Your task to perform on an android device: toggle notification dots Image 0: 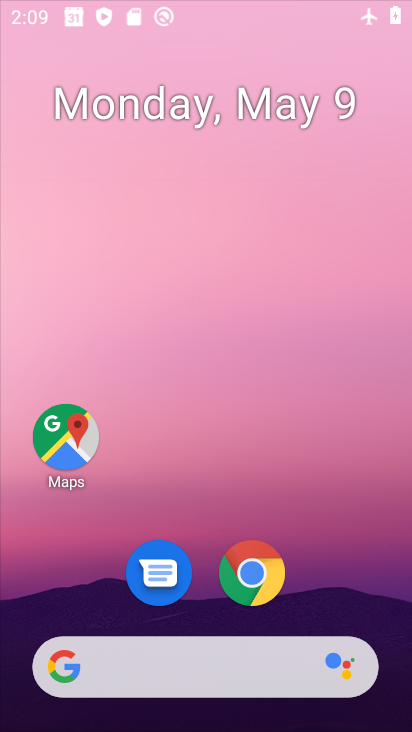
Step 0: drag from (266, 585) to (192, 120)
Your task to perform on an android device: toggle notification dots Image 1: 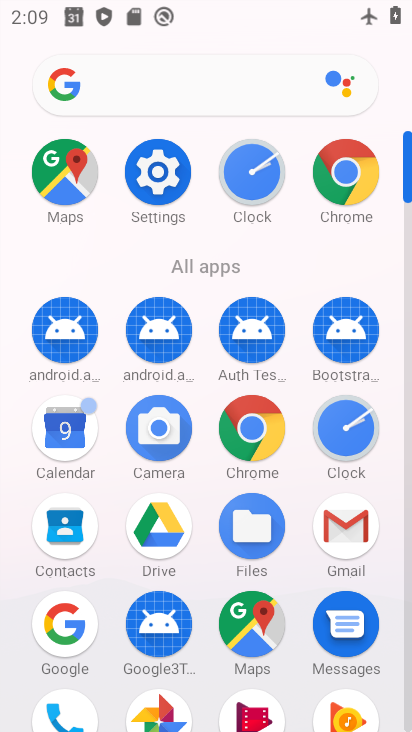
Step 1: click (149, 181)
Your task to perform on an android device: toggle notification dots Image 2: 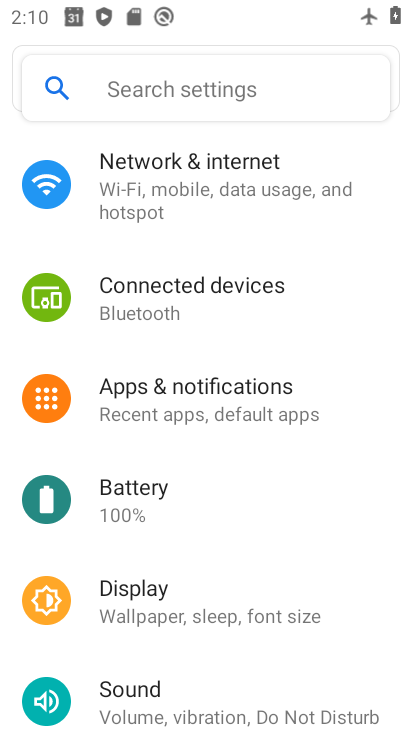
Step 2: click (154, 391)
Your task to perform on an android device: toggle notification dots Image 3: 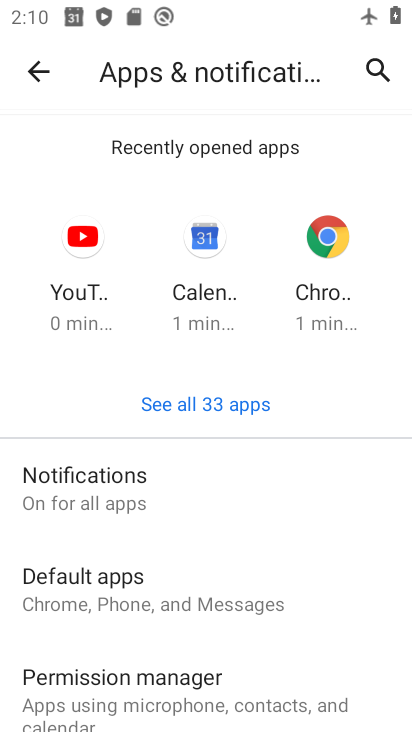
Step 3: drag from (201, 504) to (135, 149)
Your task to perform on an android device: toggle notification dots Image 4: 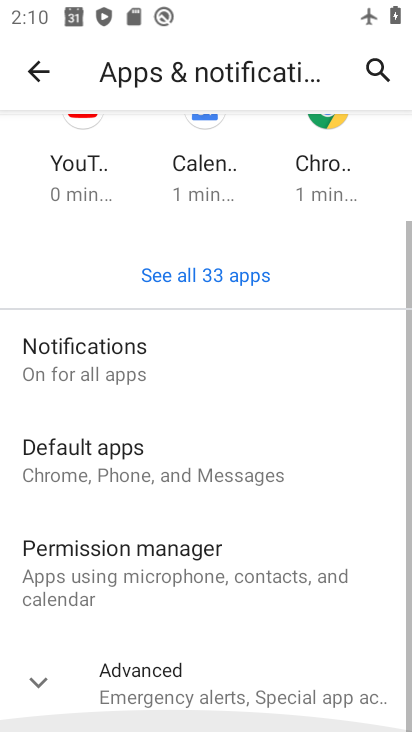
Step 4: drag from (141, 499) to (128, 307)
Your task to perform on an android device: toggle notification dots Image 5: 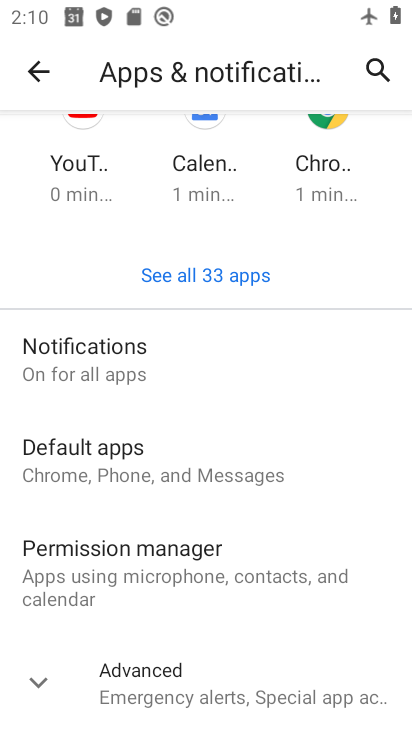
Step 5: drag from (152, 601) to (155, 242)
Your task to perform on an android device: toggle notification dots Image 6: 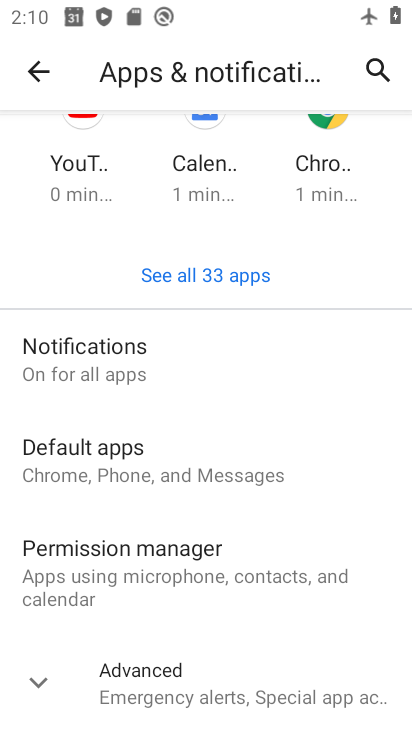
Step 6: click (84, 365)
Your task to perform on an android device: toggle notification dots Image 7: 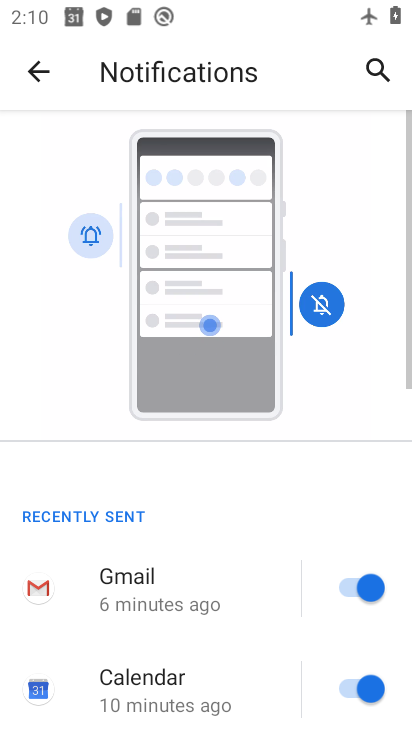
Step 7: drag from (176, 686) to (165, 241)
Your task to perform on an android device: toggle notification dots Image 8: 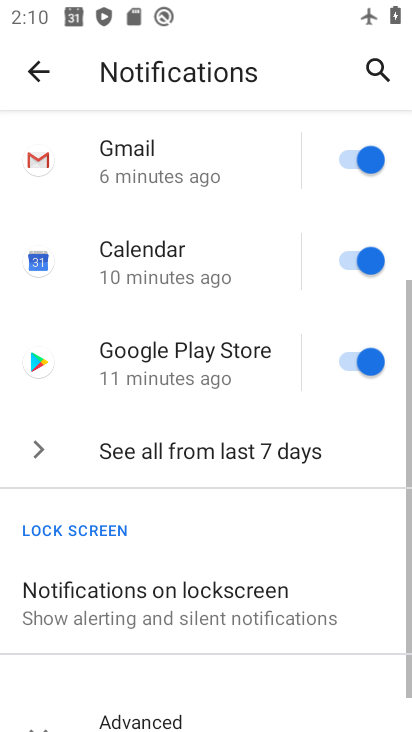
Step 8: drag from (249, 593) to (257, 229)
Your task to perform on an android device: toggle notification dots Image 9: 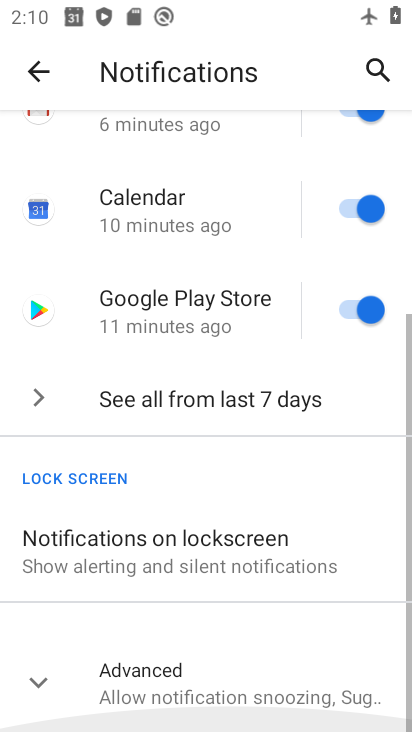
Step 9: drag from (281, 527) to (250, 145)
Your task to perform on an android device: toggle notification dots Image 10: 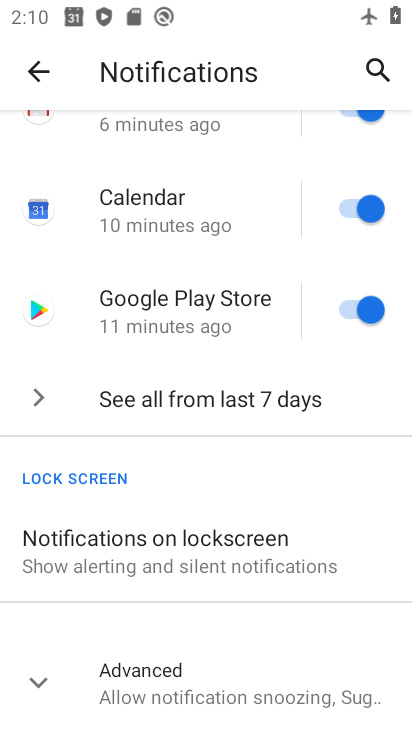
Step 10: click (183, 682)
Your task to perform on an android device: toggle notification dots Image 11: 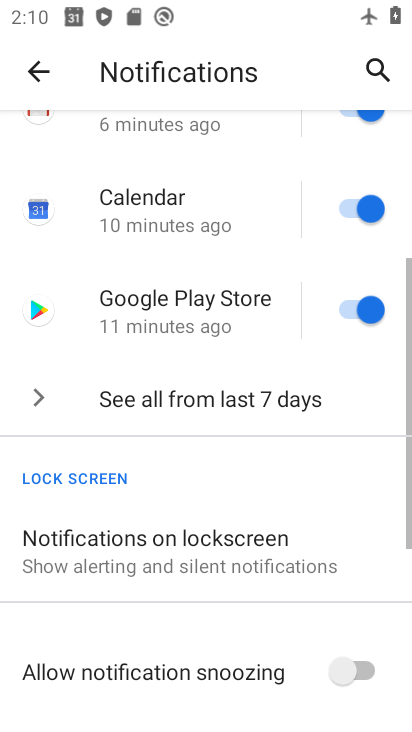
Step 11: drag from (178, 673) to (148, 272)
Your task to perform on an android device: toggle notification dots Image 12: 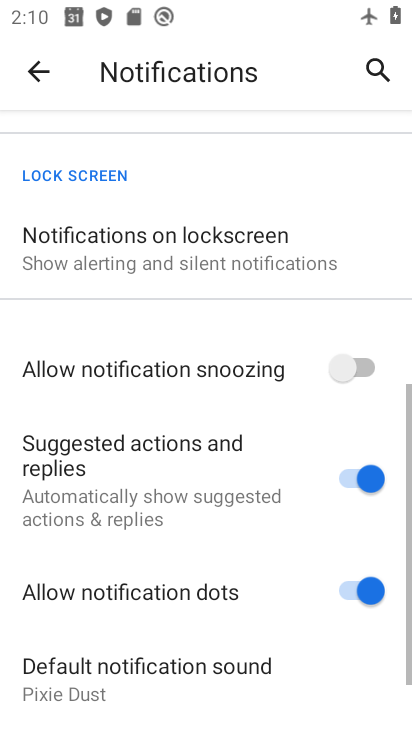
Step 12: drag from (256, 513) to (214, 45)
Your task to perform on an android device: toggle notification dots Image 13: 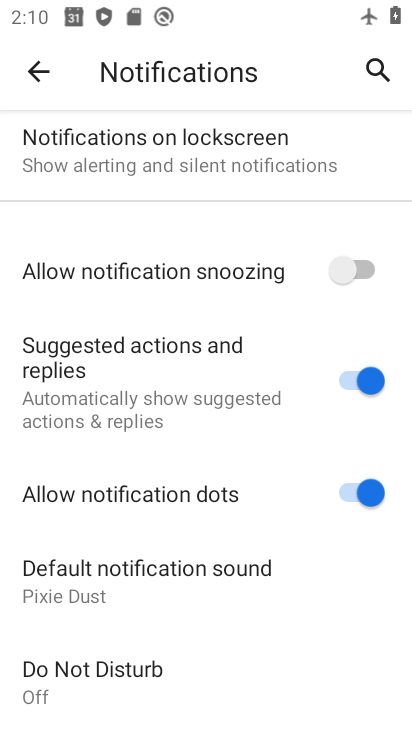
Step 13: click (364, 478)
Your task to perform on an android device: toggle notification dots Image 14: 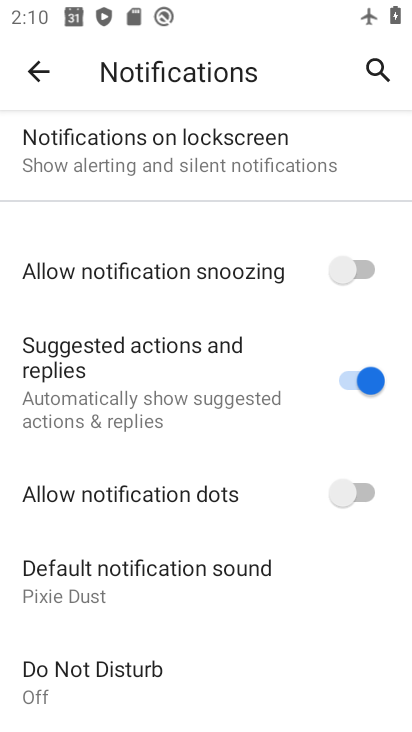
Step 14: task complete